Your task to perform on an android device: Open Google Maps and go to "Timeline" Image 0: 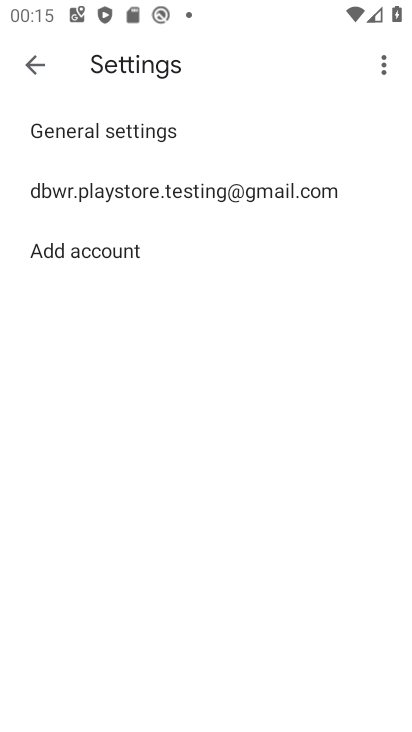
Step 0: press home button
Your task to perform on an android device: Open Google Maps and go to "Timeline" Image 1: 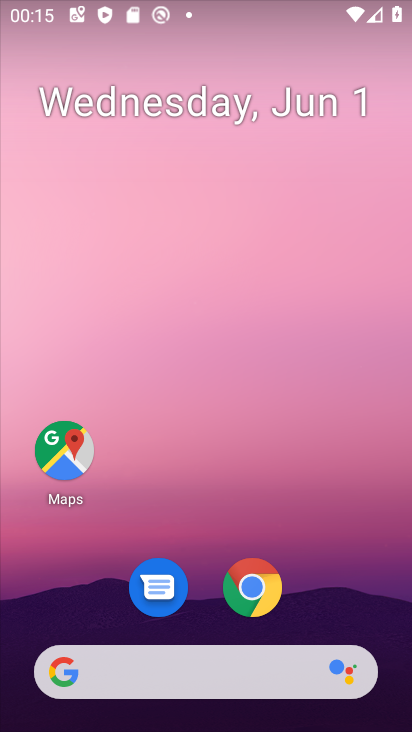
Step 1: click (57, 447)
Your task to perform on an android device: Open Google Maps and go to "Timeline" Image 2: 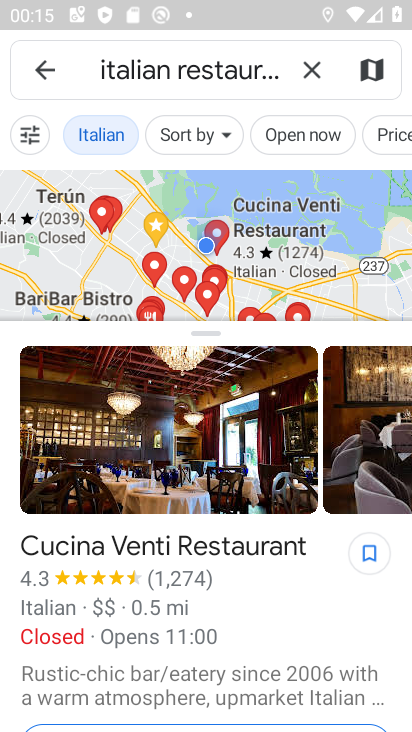
Step 2: click (44, 76)
Your task to perform on an android device: Open Google Maps and go to "Timeline" Image 3: 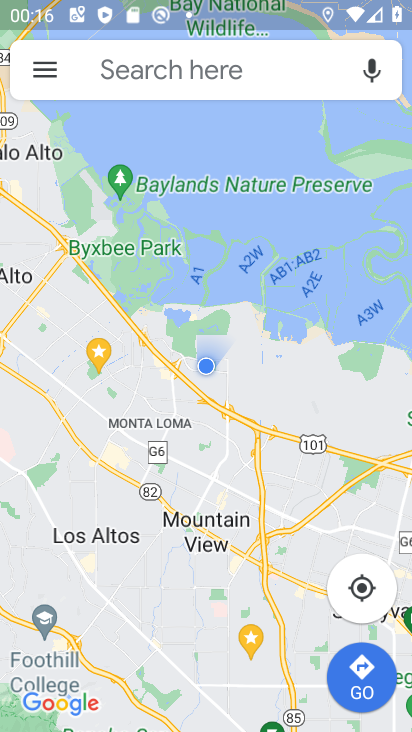
Step 3: click (40, 67)
Your task to perform on an android device: Open Google Maps and go to "Timeline" Image 4: 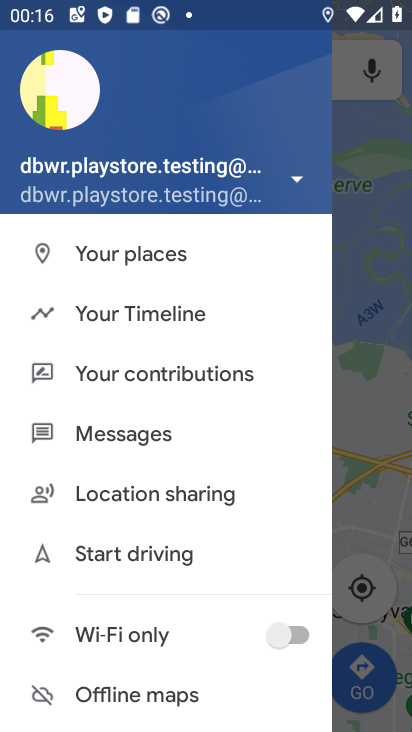
Step 4: click (129, 309)
Your task to perform on an android device: Open Google Maps and go to "Timeline" Image 5: 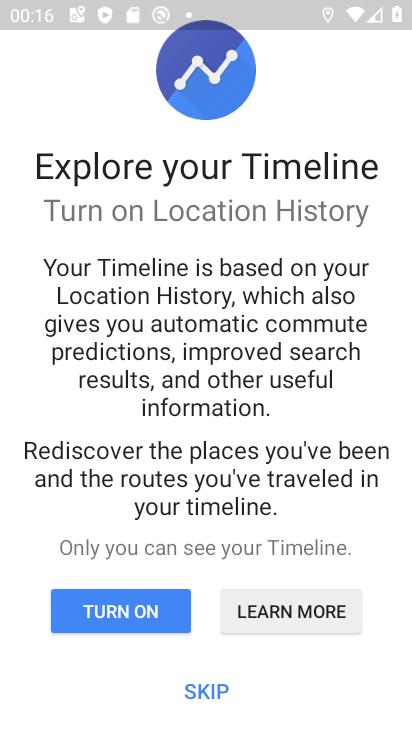
Step 5: click (208, 689)
Your task to perform on an android device: Open Google Maps and go to "Timeline" Image 6: 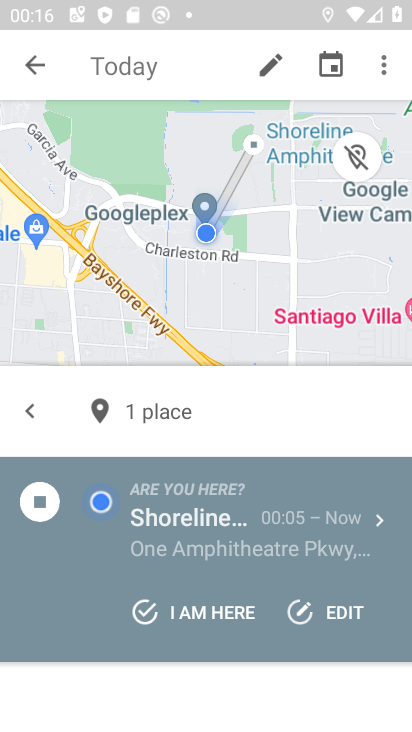
Step 6: task complete